Your task to perform on an android device: Search for the best 100% cotton t-shirts Image 0: 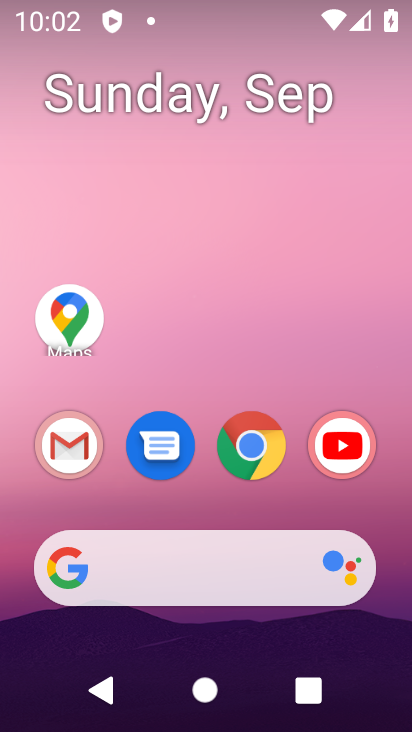
Step 0: drag from (262, 141) to (299, 6)
Your task to perform on an android device: Search for the best 100% cotton t-shirts Image 1: 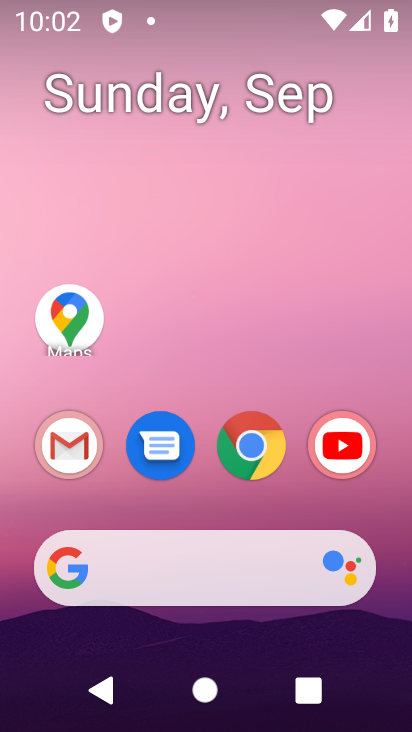
Step 1: drag from (165, 564) to (0, 278)
Your task to perform on an android device: Search for the best 100% cotton t-shirts Image 2: 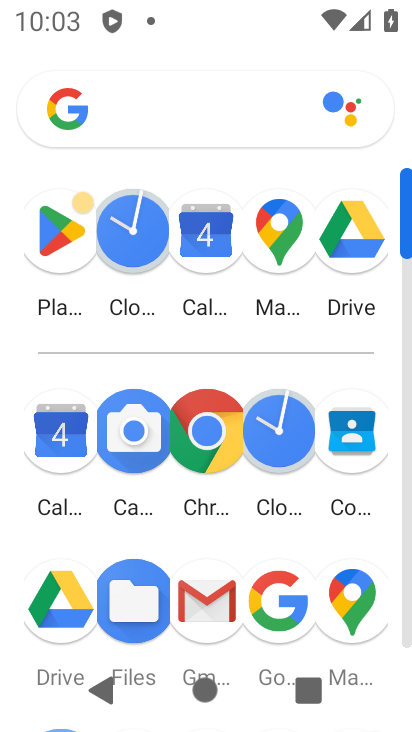
Step 2: click (194, 434)
Your task to perform on an android device: Search for the best 100% cotton t-shirts Image 3: 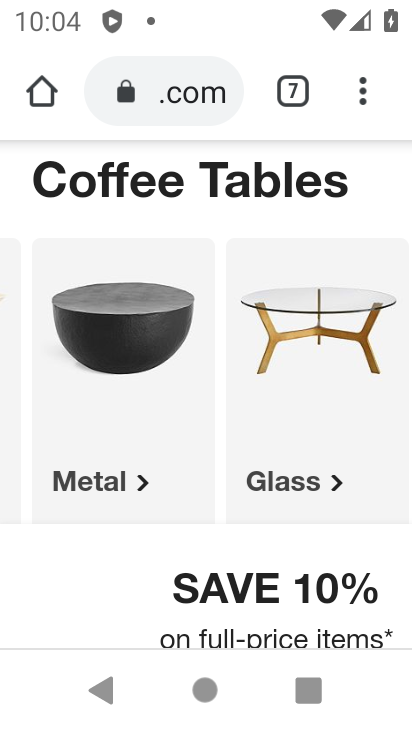
Step 3: click (172, 97)
Your task to perform on an android device: Search for the best 100% cotton t-shirts Image 4: 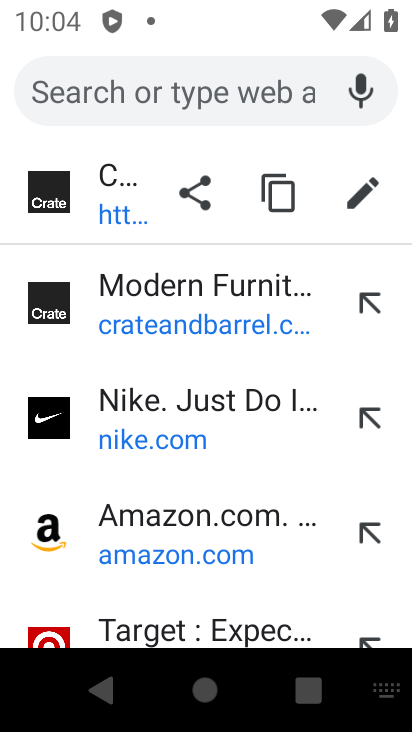
Step 4: type "t-shirts"
Your task to perform on an android device: Search for the best 100% cotton t-shirts Image 5: 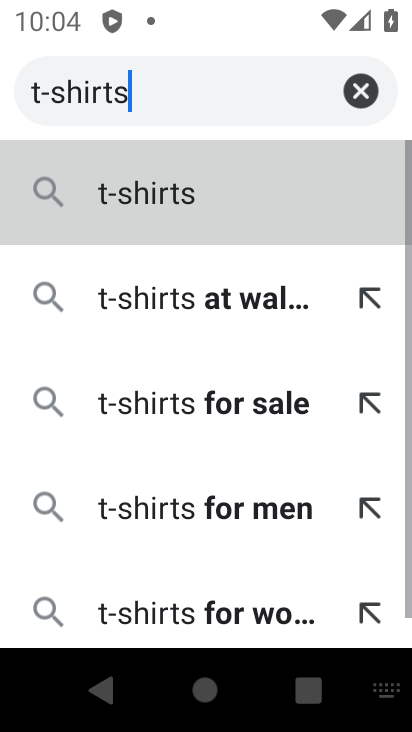
Step 5: press enter
Your task to perform on an android device: Search for the best 100% cotton t-shirts Image 6: 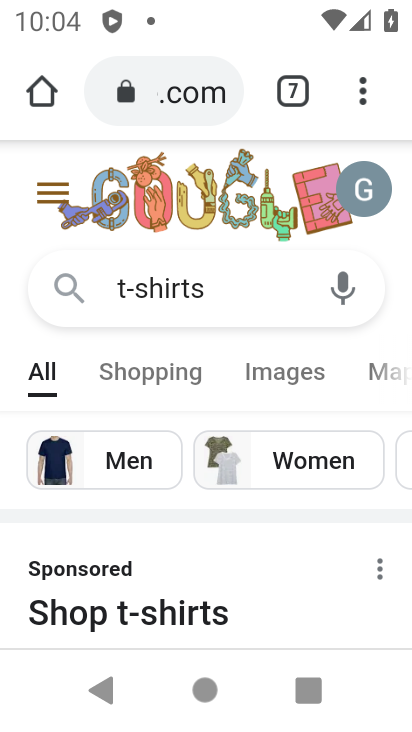
Step 6: drag from (95, 589) to (69, 274)
Your task to perform on an android device: Search for the best 100% cotton t-shirts Image 7: 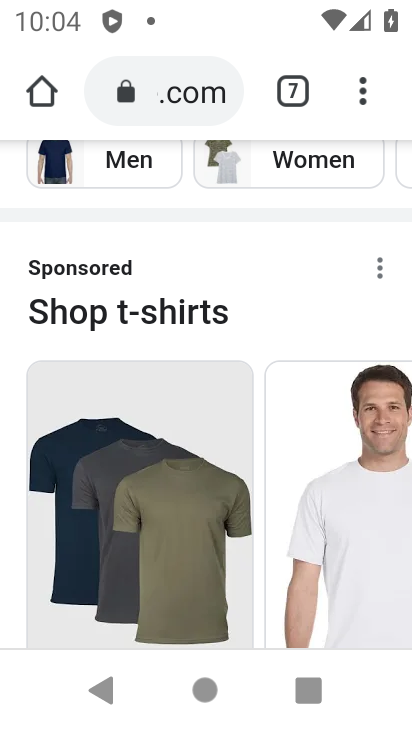
Step 7: drag from (224, 467) to (257, 272)
Your task to perform on an android device: Search for the best 100% cotton t-shirts Image 8: 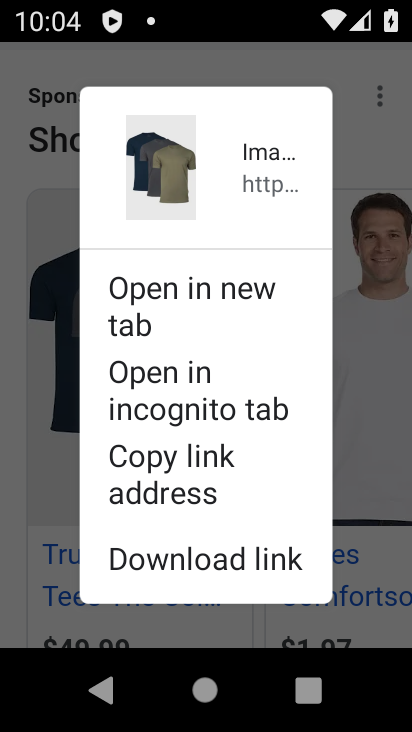
Step 8: click (375, 379)
Your task to perform on an android device: Search for the best 100% cotton t-shirts Image 9: 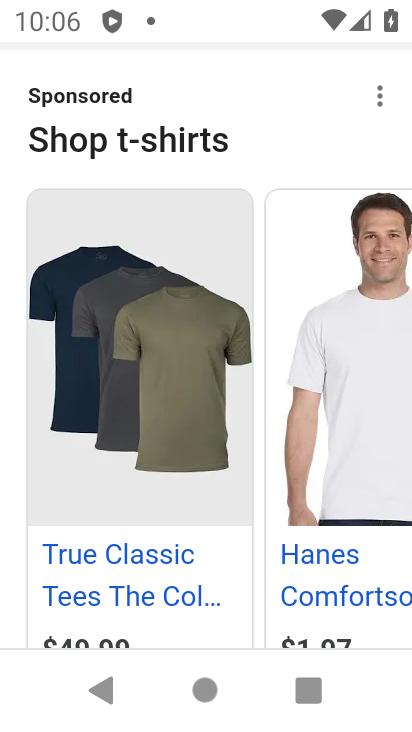
Step 9: task complete